Your task to perform on an android device: What's the weather going to be this weekend? Image 0: 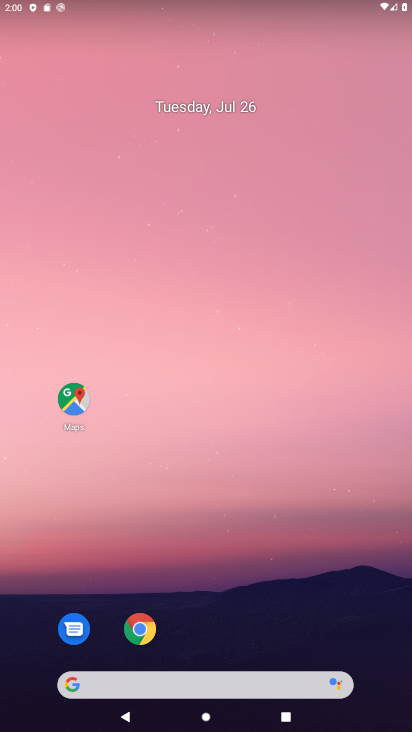
Step 0: click (251, 690)
Your task to perform on an android device: What's the weather going to be this weekend? Image 1: 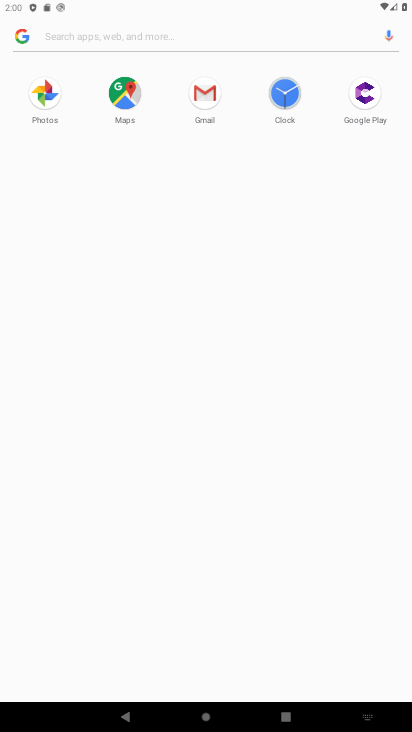
Step 1: type "what's the weather going to be this weekend"
Your task to perform on an android device: What's the weather going to be this weekend? Image 2: 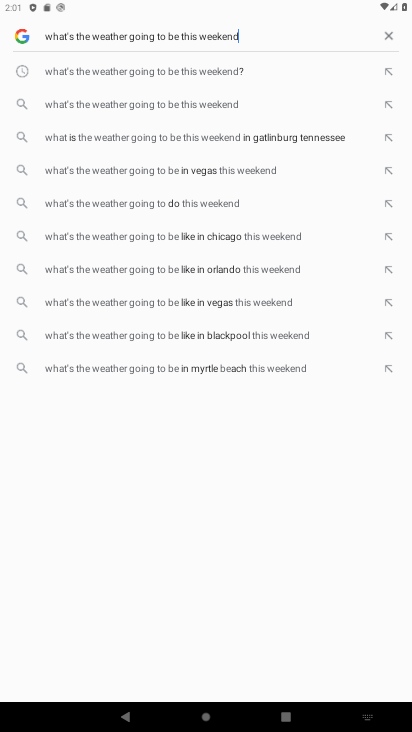
Step 2: click (87, 63)
Your task to perform on an android device: What's the weather going to be this weekend? Image 3: 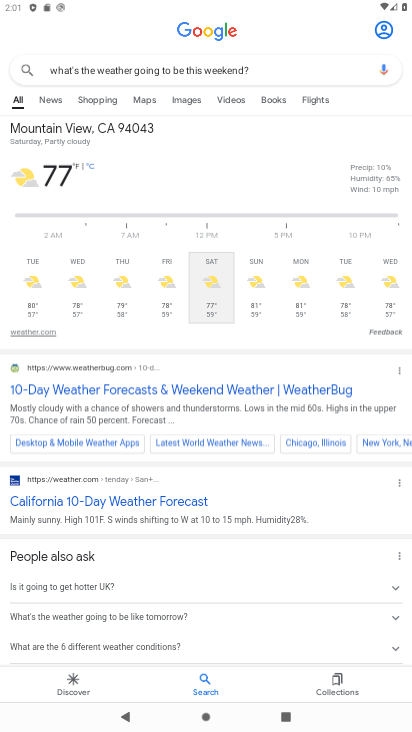
Step 3: task complete